Your task to perform on an android device: turn notification dots off Image 0: 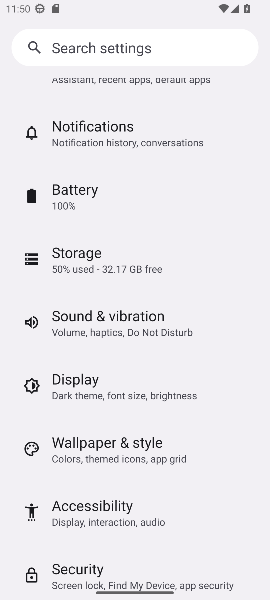
Step 0: press home button
Your task to perform on an android device: turn notification dots off Image 1: 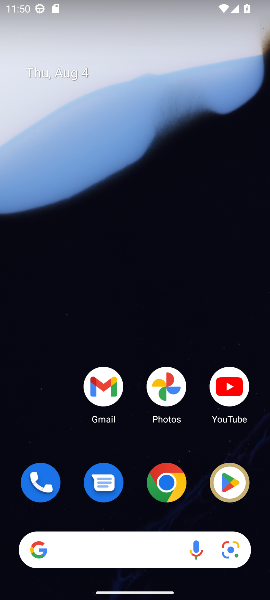
Step 1: drag from (138, 503) to (138, 185)
Your task to perform on an android device: turn notification dots off Image 2: 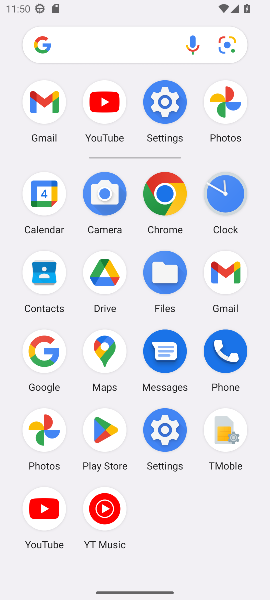
Step 2: click (155, 111)
Your task to perform on an android device: turn notification dots off Image 3: 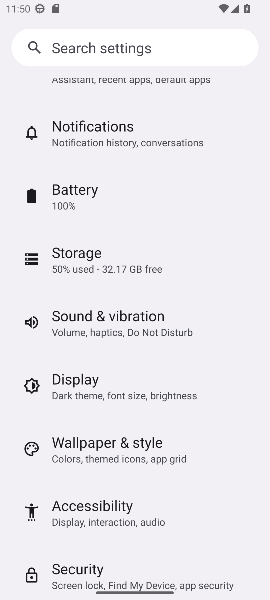
Step 3: click (164, 136)
Your task to perform on an android device: turn notification dots off Image 4: 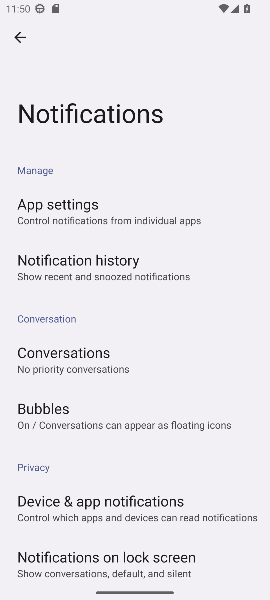
Step 4: drag from (120, 510) to (144, 323)
Your task to perform on an android device: turn notification dots off Image 5: 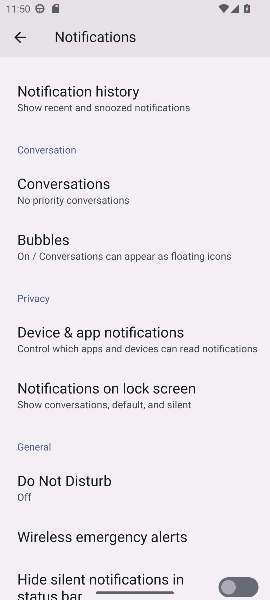
Step 5: drag from (147, 454) to (160, 341)
Your task to perform on an android device: turn notification dots off Image 6: 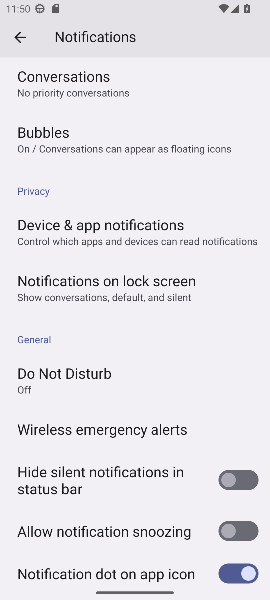
Step 6: drag from (160, 534) to (158, 376)
Your task to perform on an android device: turn notification dots off Image 7: 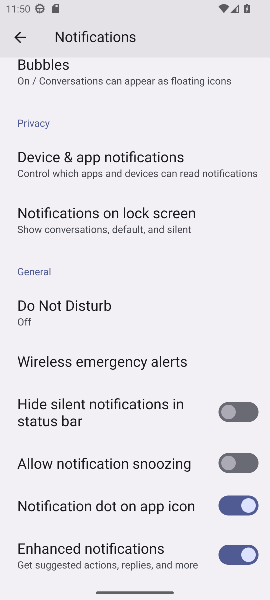
Step 7: click (228, 500)
Your task to perform on an android device: turn notification dots off Image 8: 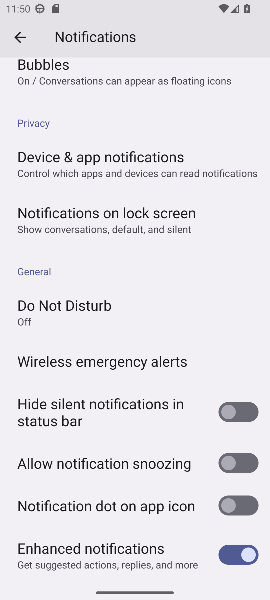
Step 8: task complete